Your task to perform on an android device: find snoozed emails in the gmail app Image 0: 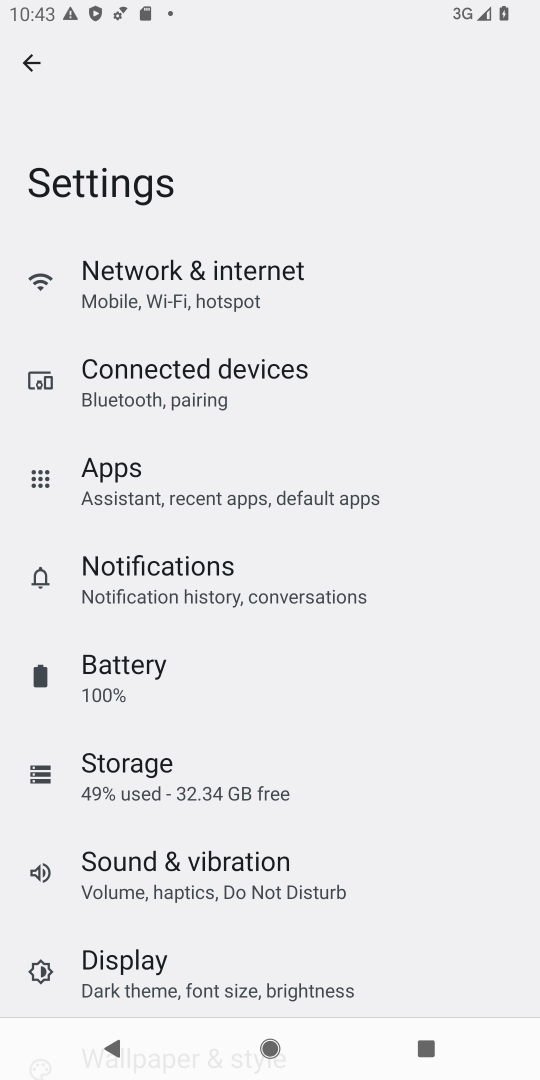
Step 0: press back button
Your task to perform on an android device: find snoozed emails in the gmail app Image 1: 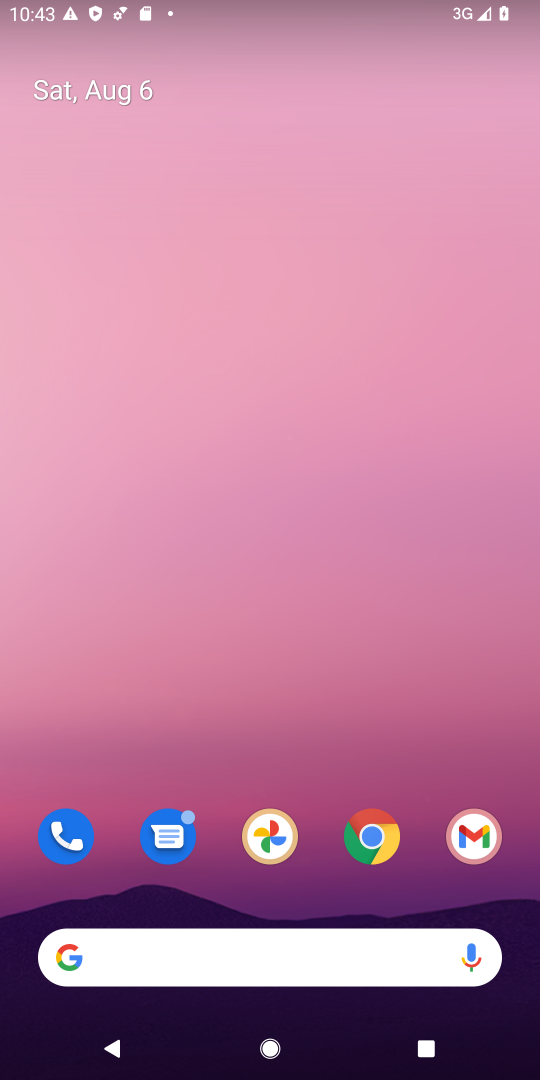
Step 1: click (481, 833)
Your task to perform on an android device: find snoozed emails in the gmail app Image 2: 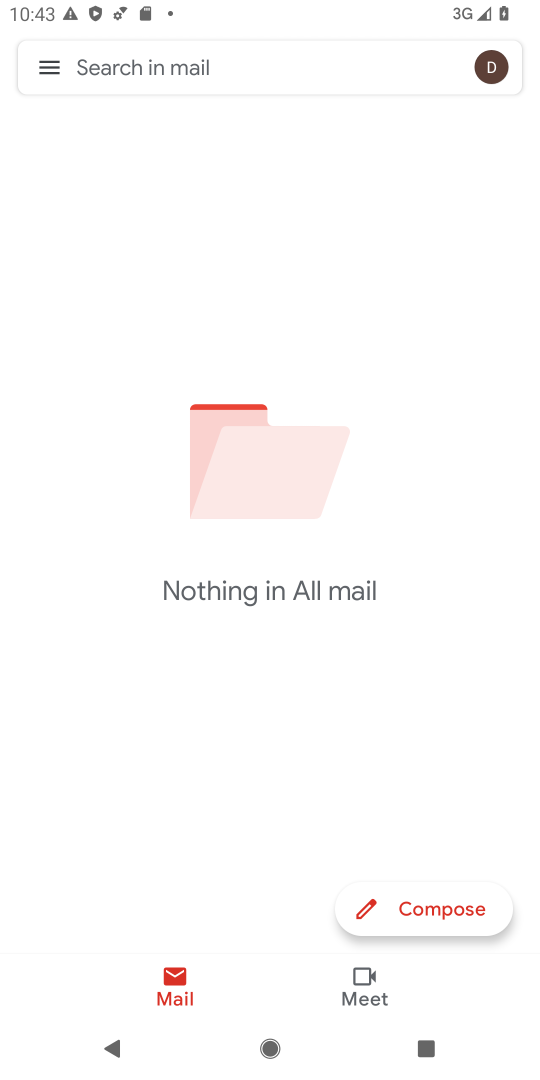
Step 2: click (45, 72)
Your task to perform on an android device: find snoozed emails in the gmail app Image 3: 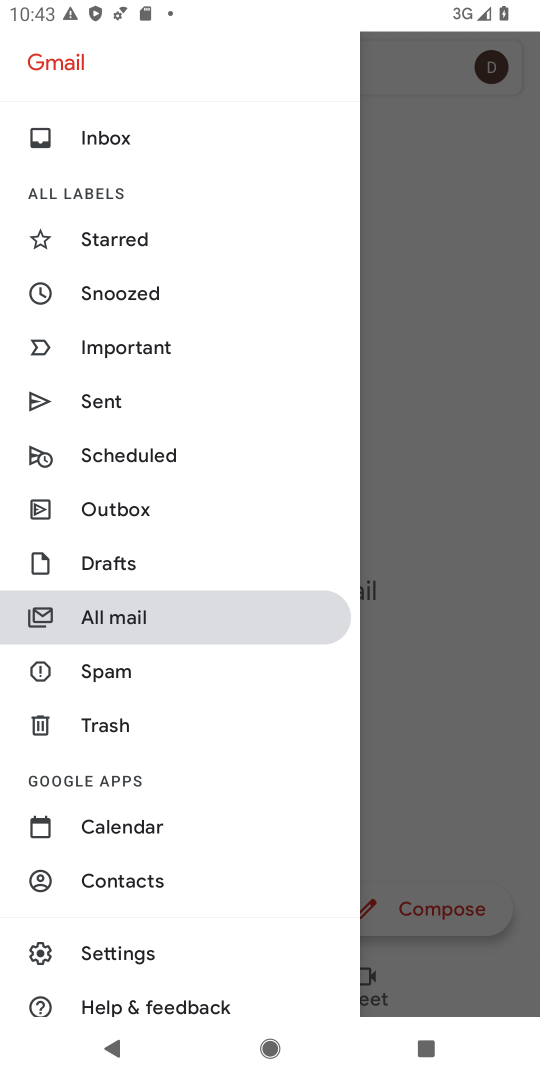
Step 3: click (130, 285)
Your task to perform on an android device: find snoozed emails in the gmail app Image 4: 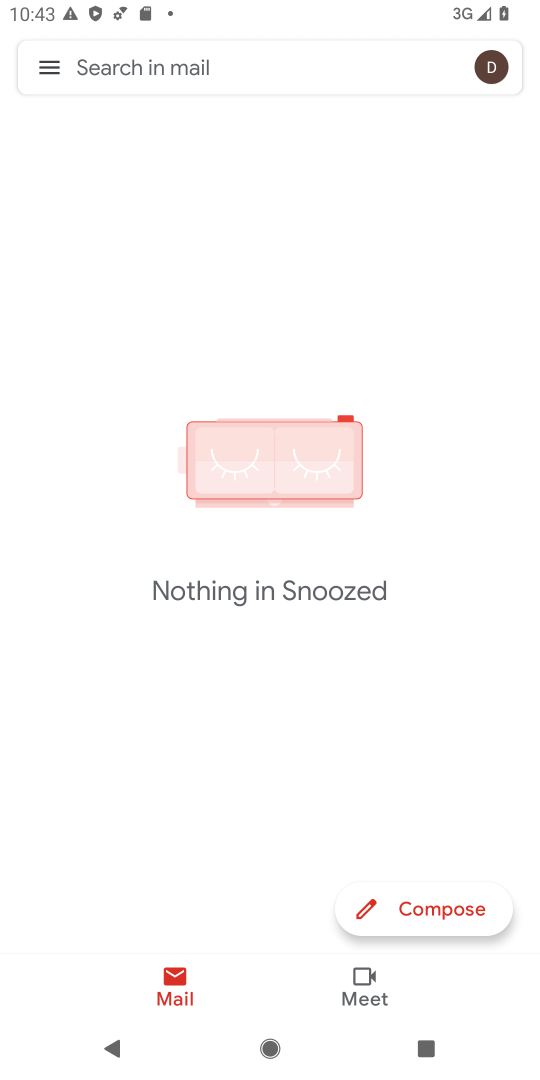
Step 4: task complete